Your task to perform on an android device: What's the latest news in space technology? Image 0: 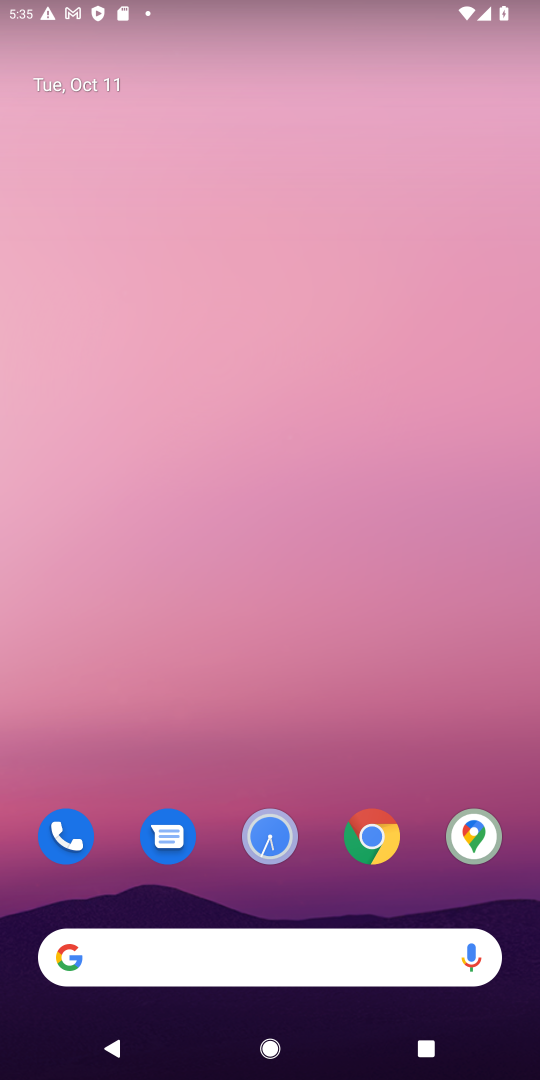
Step 0: click (372, 835)
Your task to perform on an android device: What's the latest news in space technology? Image 1: 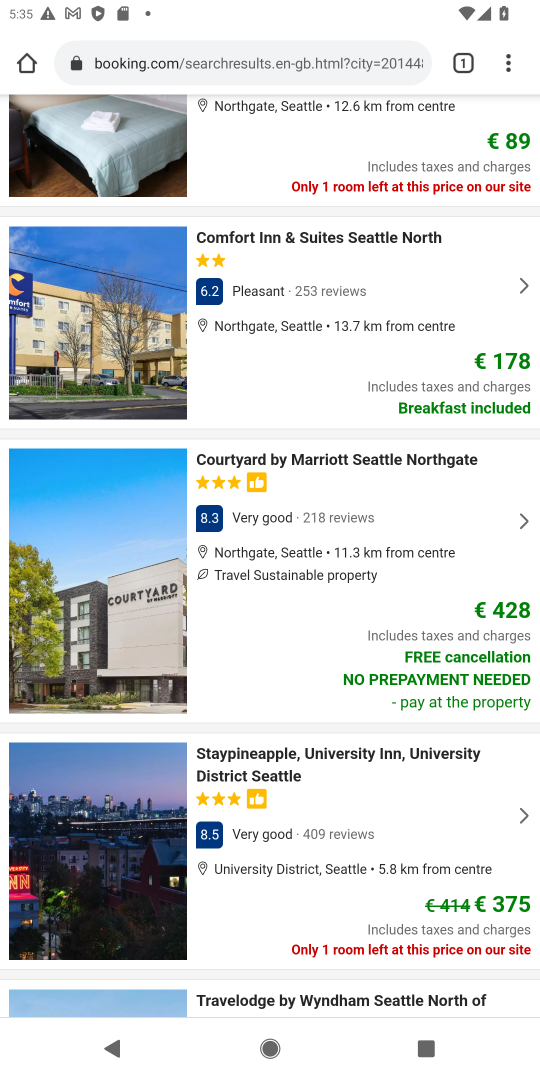
Step 1: click (214, 52)
Your task to perform on an android device: What's the latest news in space technology? Image 2: 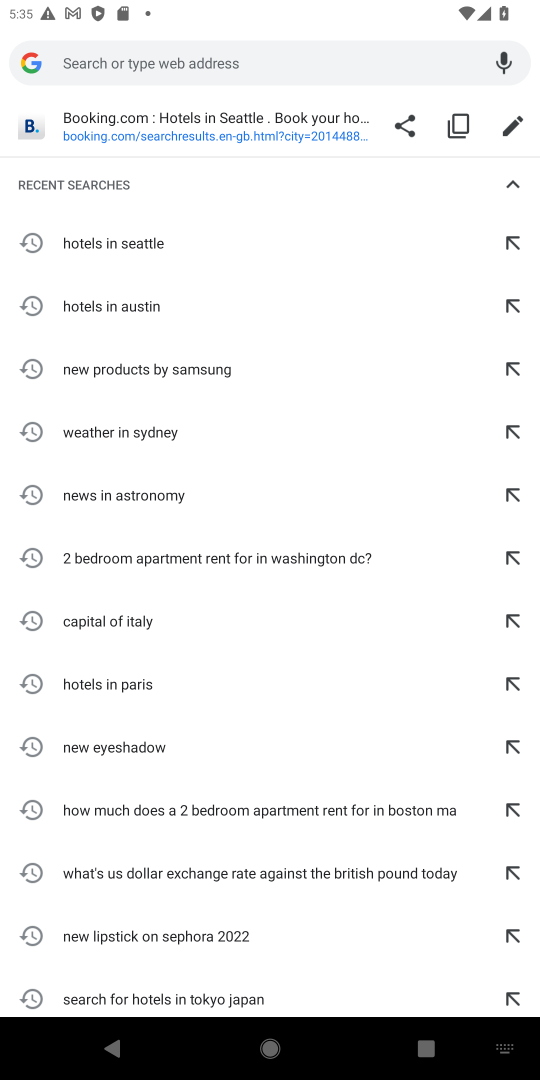
Step 2: type "news in sp"
Your task to perform on an android device: What's the latest news in space technology? Image 3: 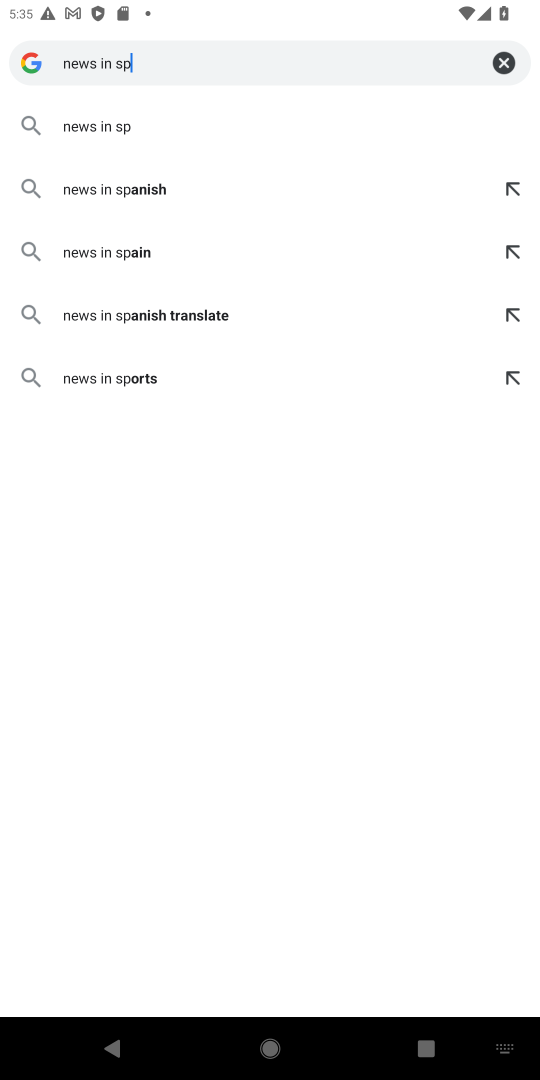
Step 3: type "ace technology"
Your task to perform on an android device: What's the latest news in space technology? Image 4: 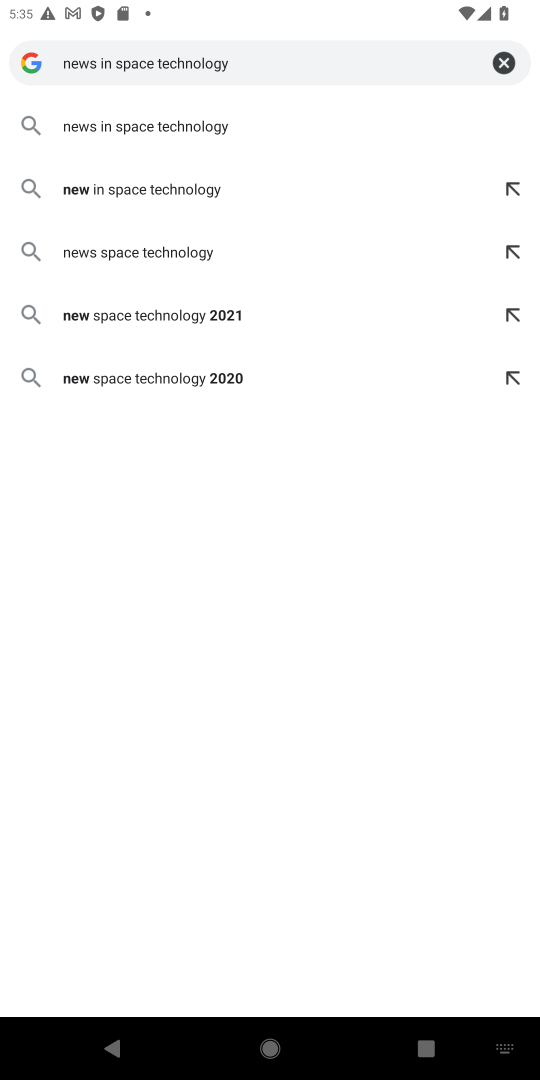
Step 4: click (133, 130)
Your task to perform on an android device: What's the latest news in space technology? Image 5: 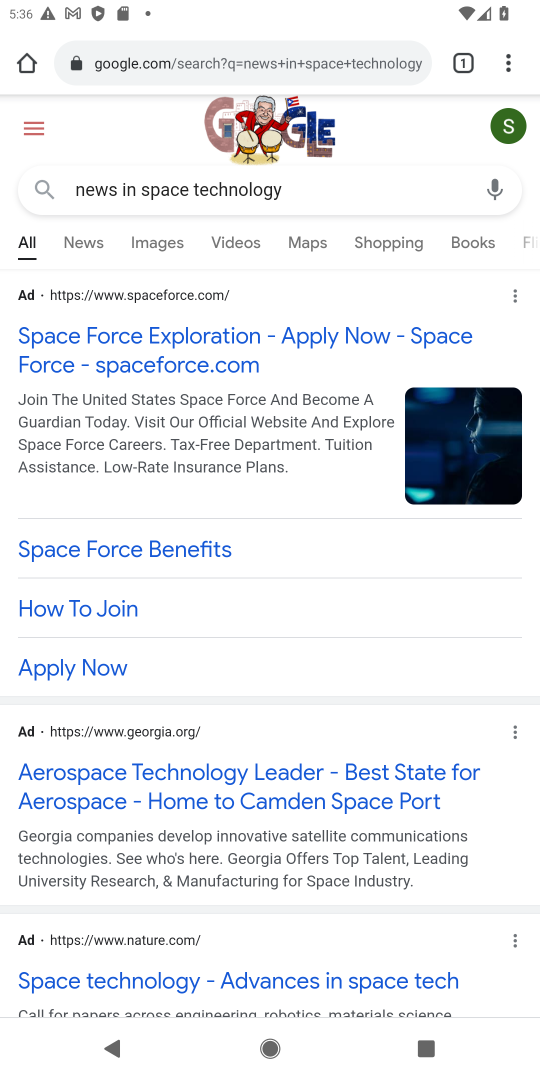
Step 5: click (159, 978)
Your task to perform on an android device: What's the latest news in space technology? Image 6: 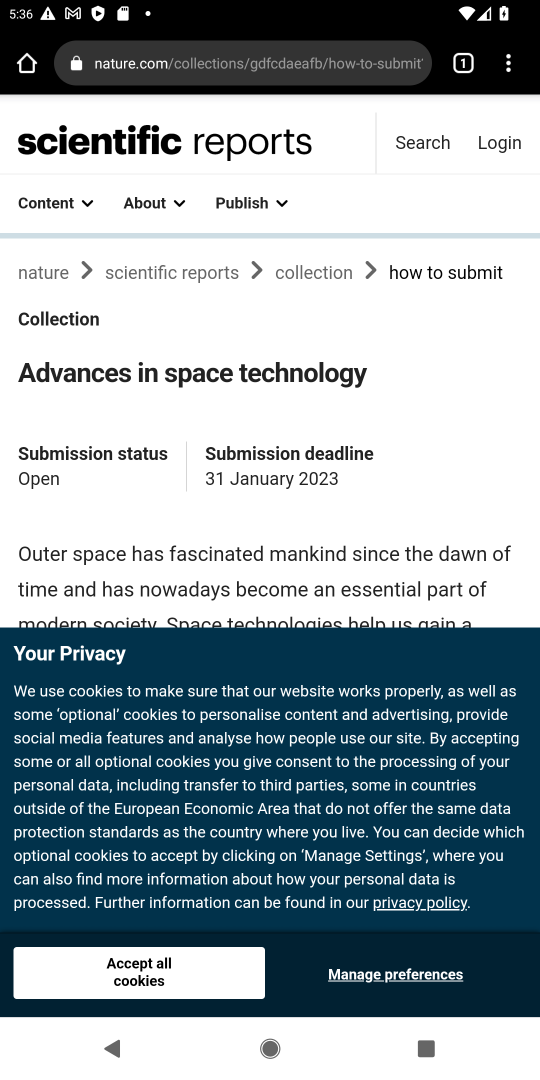
Step 6: click (140, 970)
Your task to perform on an android device: What's the latest news in space technology? Image 7: 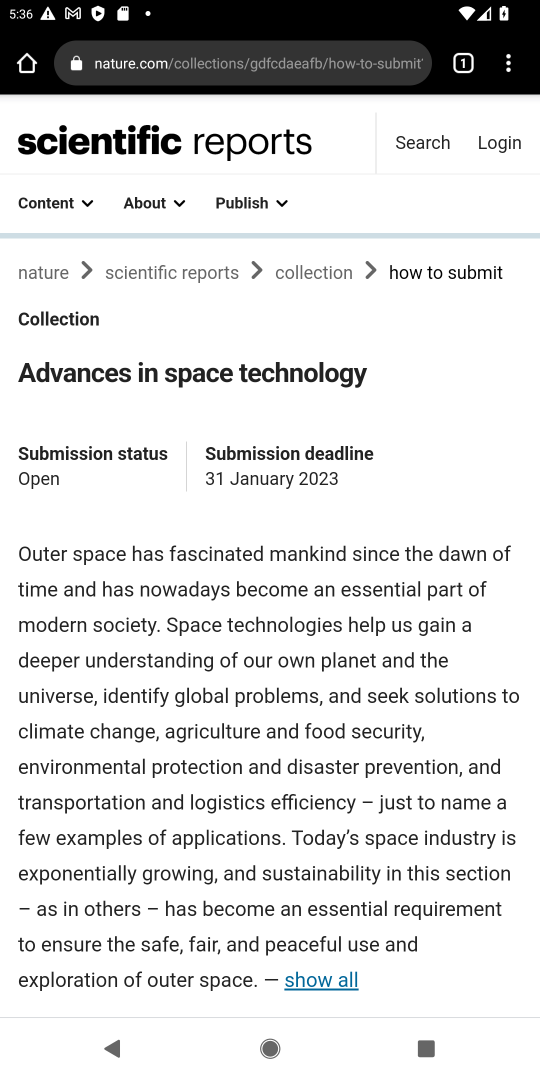
Step 7: task complete